Your task to perform on an android device: Open the phone app and click the voicemail tab. Image 0: 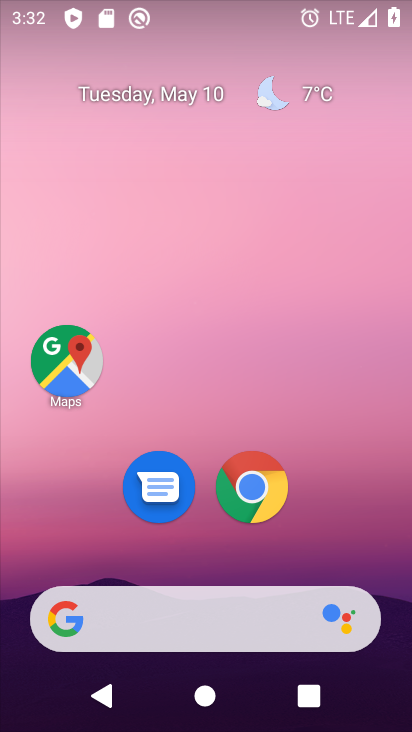
Step 0: drag from (358, 518) to (244, 37)
Your task to perform on an android device: Open the phone app and click the voicemail tab. Image 1: 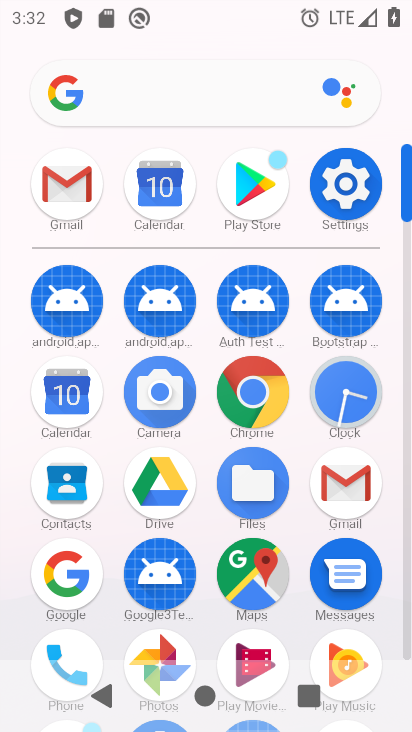
Step 1: click (52, 663)
Your task to perform on an android device: Open the phone app and click the voicemail tab. Image 2: 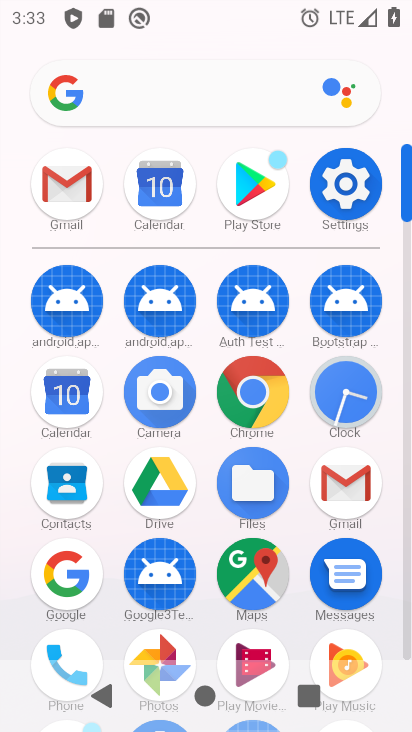
Step 2: click (73, 662)
Your task to perform on an android device: Open the phone app and click the voicemail tab. Image 3: 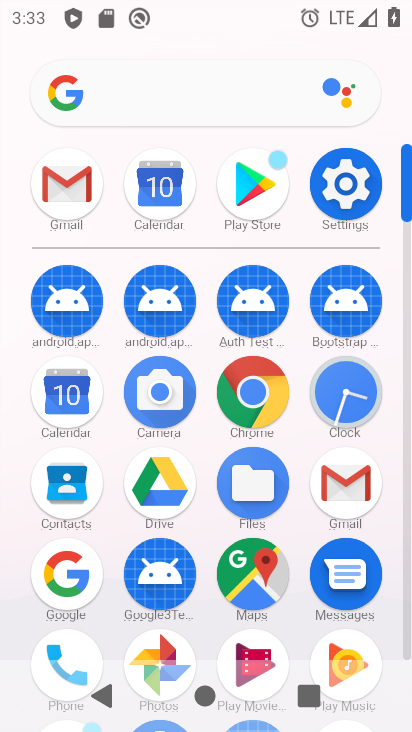
Step 3: click (73, 645)
Your task to perform on an android device: Open the phone app and click the voicemail tab. Image 4: 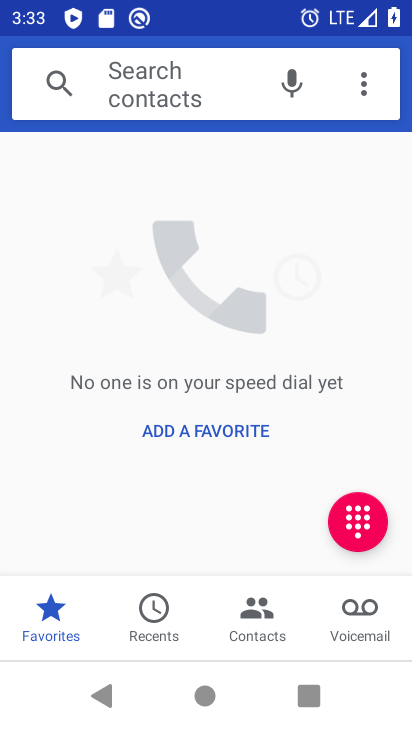
Step 4: click (352, 636)
Your task to perform on an android device: Open the phone app and click the voicemail tab. Image 5: 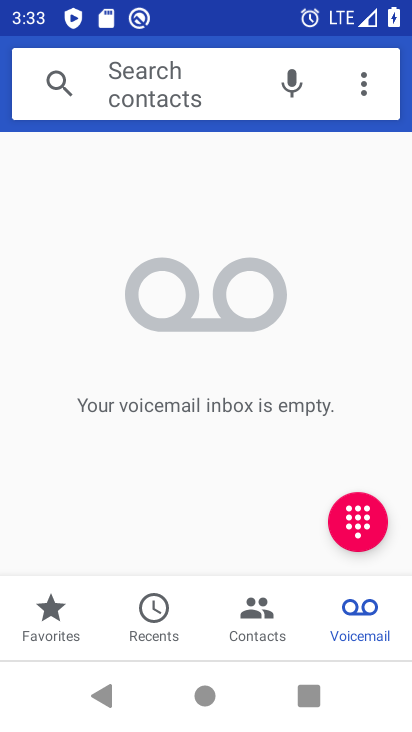
Step 5: task complete